Your task to perform on an android device: turn off location history Image 0: 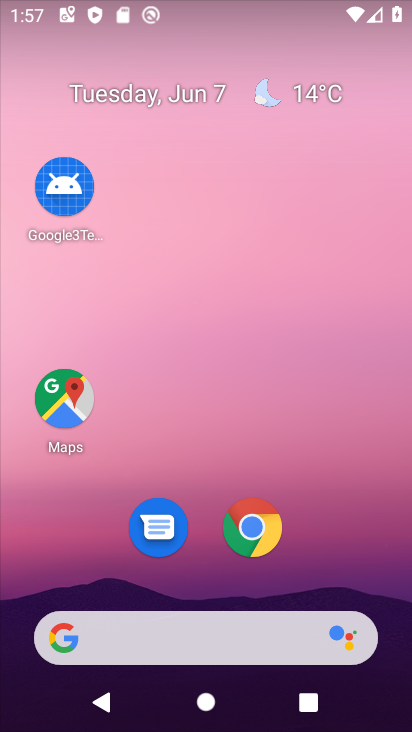
Step 0: drag from (343, 554) to (248, 34)
Your task to perform on an android device: turn off location history Image 1: 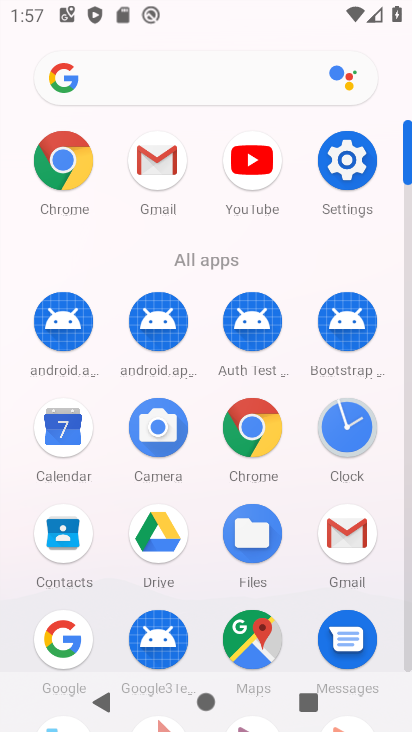
Step 1: click (336, 178)
Your task to perform on an android device: turn off location history Image 2: 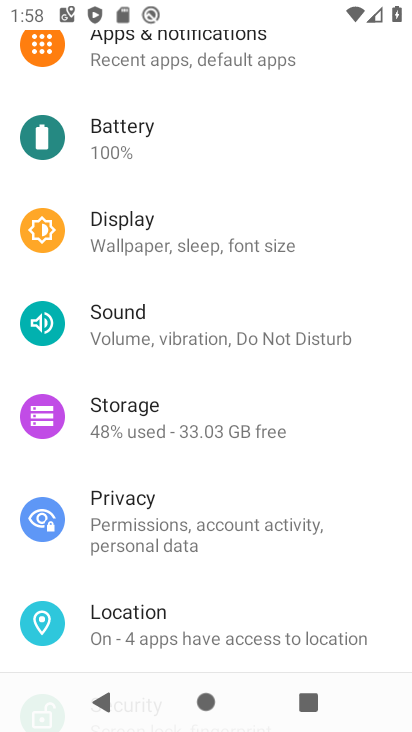
Step 2: click (145, 618)
Your task to perform on an android device: turn off location history Image 3: 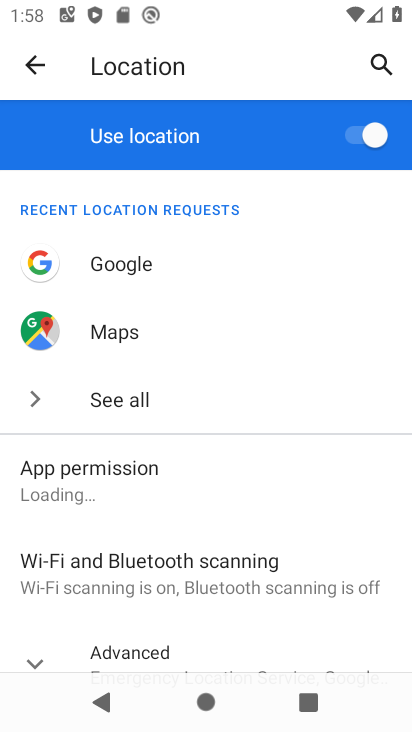
Step 3: click (160, 665)
Your task to perform on an android device: turn off location history Image 4: 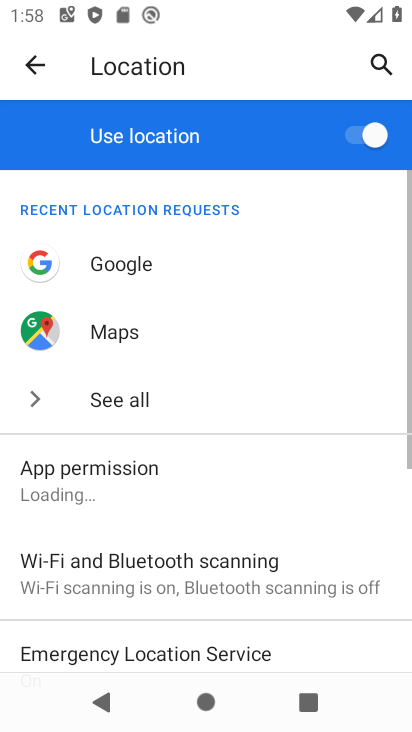
Step 4: drag from (160, 665) to (182, 409)
Your task to perform on an android device: turn off location history Image 5: 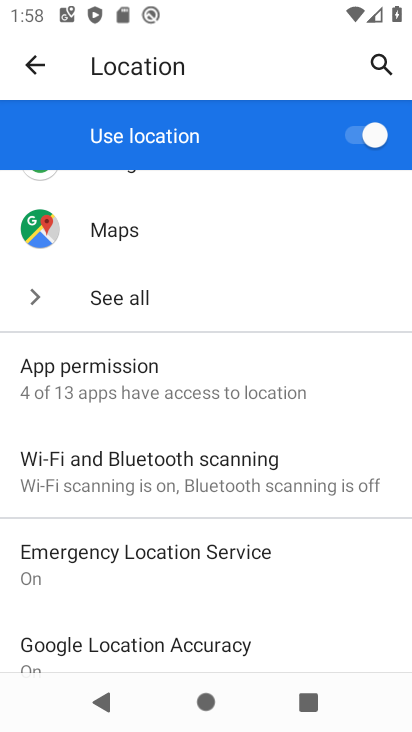
Step 5: drag from (212, 543) to (210, 261)
Your task to perform on an android device: turn off location history Image 6: 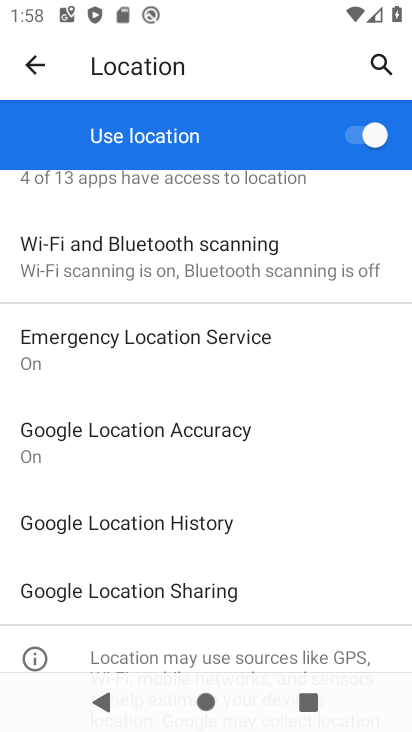
Step 6: click (225, 530)
Your task to perform on an android device: turn off location history Image 7: 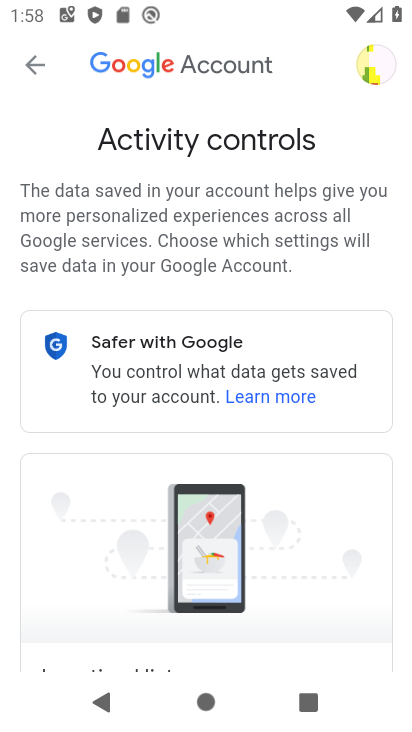
Step 7: drag from (268, 478) to (327, 10)
Your task to perform on an android device: turn off location history Image 8: 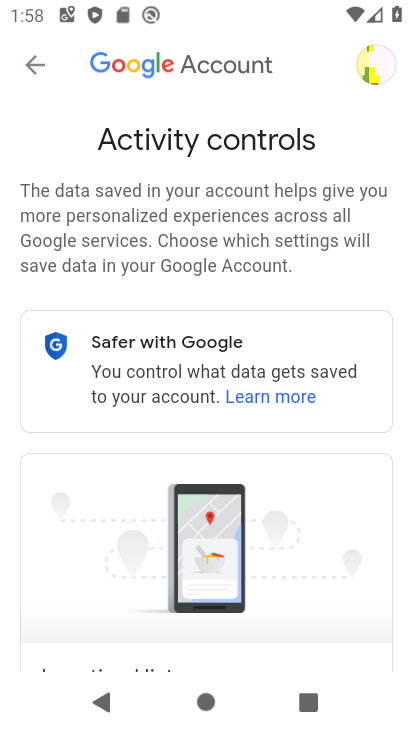
Step 8: drag from (316, 593) to (354, 44)
Your task to perform on an android device: turn off location history Image 9: 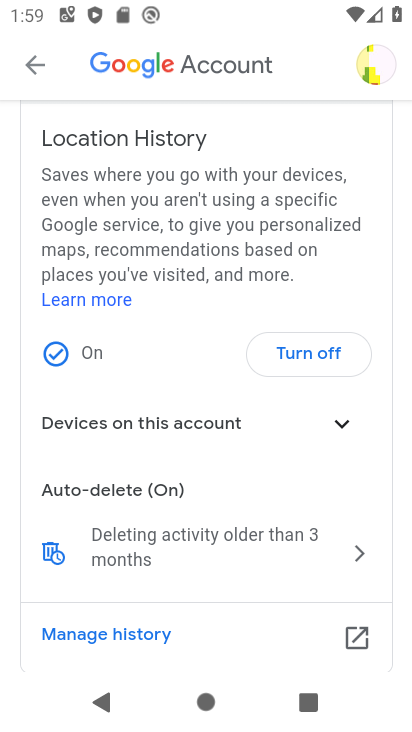
Step 9: drag from (218, 613) to (176, 3)
Your task to perform on an android device: turn off location history Image 10: 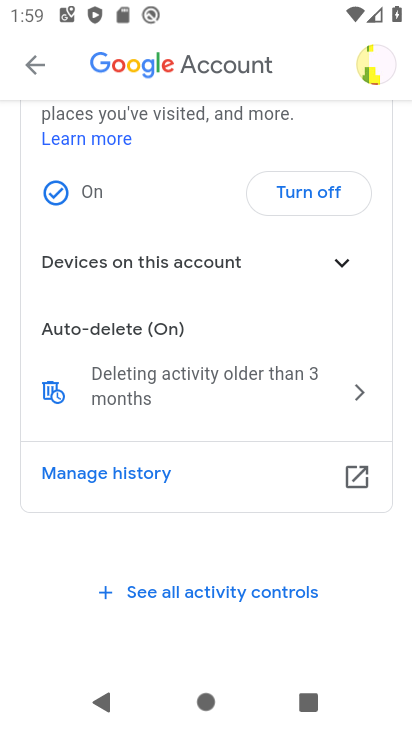
Step 10: click (310, 184)
Your task to perform on an android device: turn off location history Image 11: 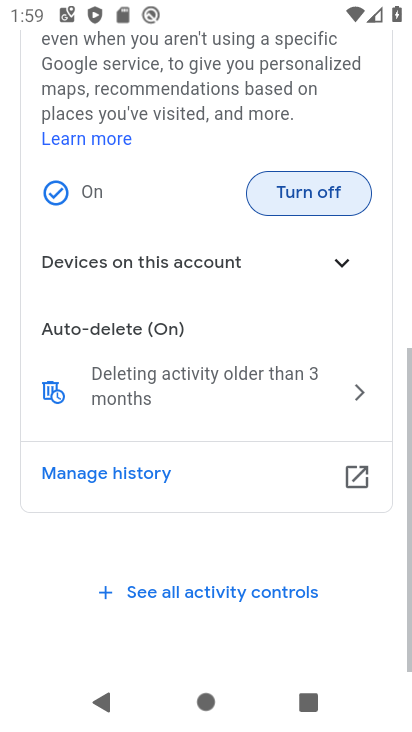
Step 11: task complete